Your task to perform on an android device: Is it going to rain today? Image 0: 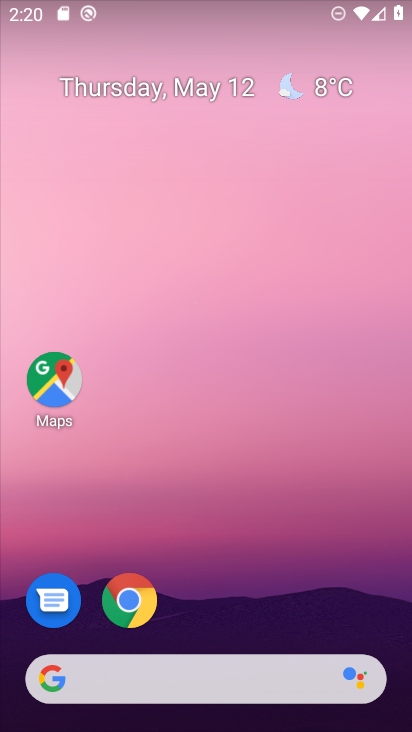
Step 0: click (285, 84)
Your task to perform on an android device: Is it going to rain today? Image 1: 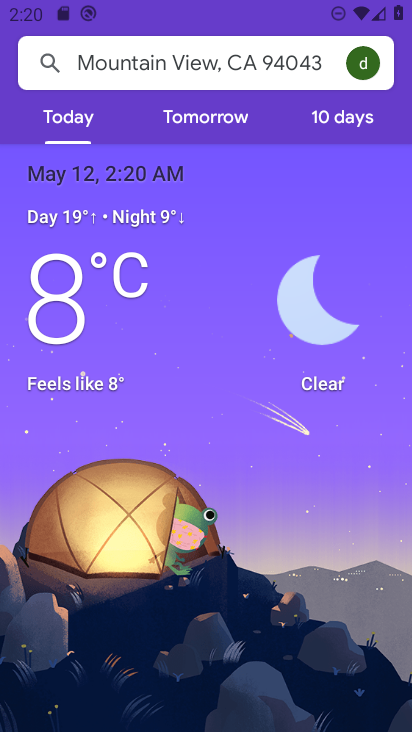
Step 1: task complete